Your task to perform on an android device: turn off smart reply in the gmail app Image 0: 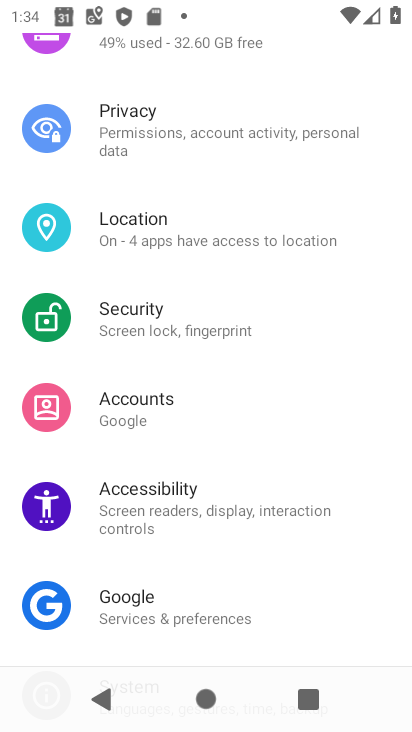
Step 0: press home button
Your task to perform on an android device: turn off smart reply in the gmail app Image 1: 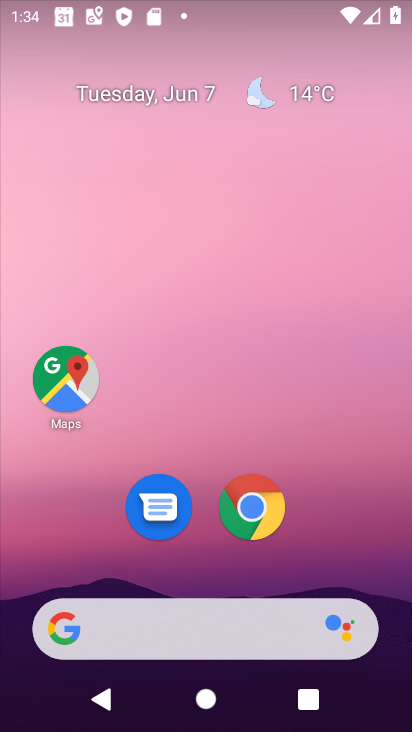
Step 1: drag from (399, 629) to (323, 84)
Your task to perform on an android device: turn off smart reply in the gmail app Image 2: 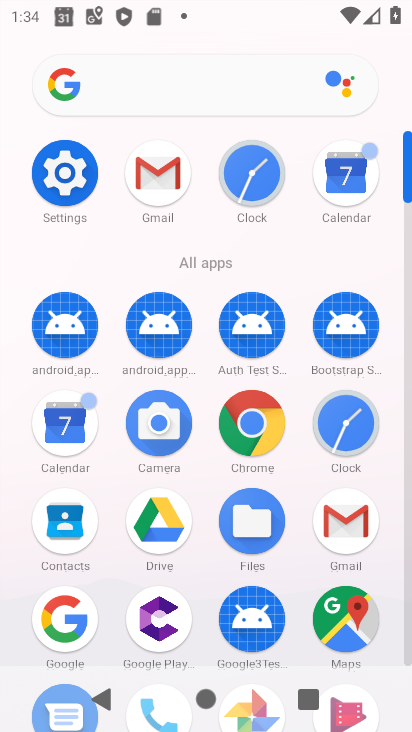
Step 2: click (403, 647)
Your task to perform on an android device: turn off smart reply in the gmail app Image 3: 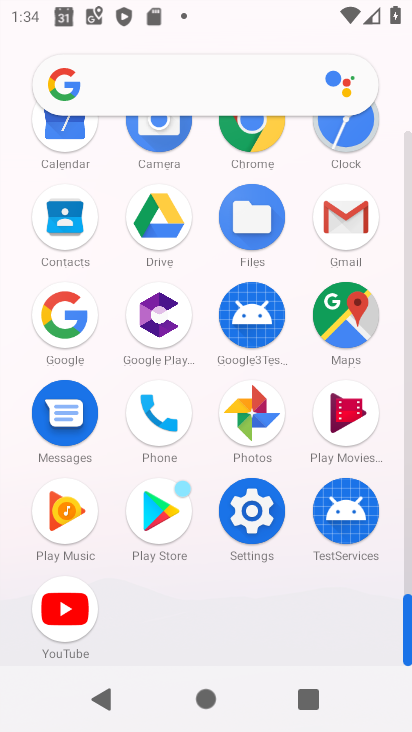
Step 3: click (343, 210)
Your task to perform on an android device: turn off smart reply in the gmail app Image 4: 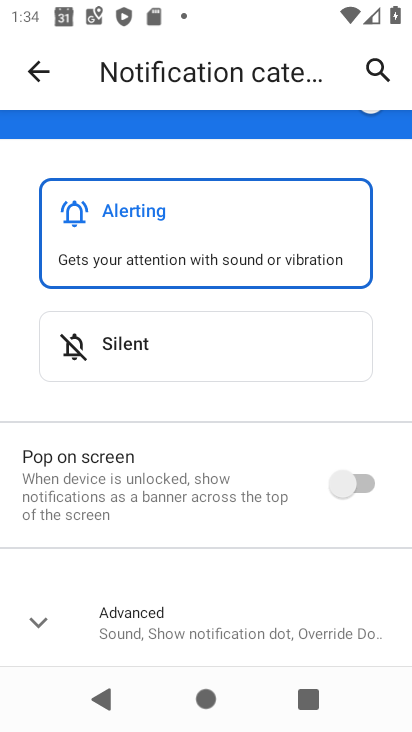
Step 4: press back button
Your task to perform on an android device: turn off smart reply in the gmail app Image 5: 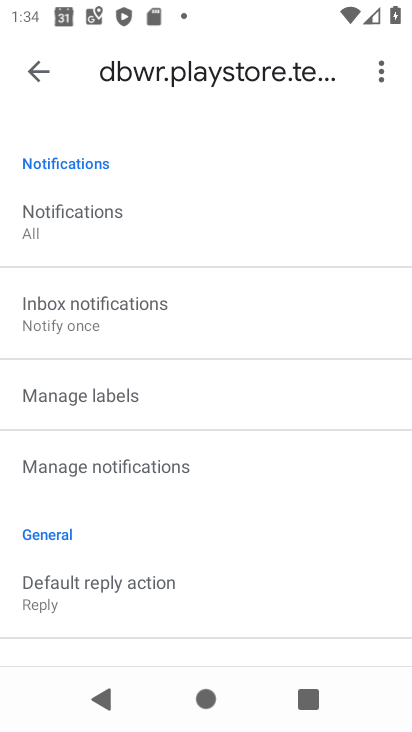
Step 5: drag from (275, 609) to (232, 89)
Your task to perform on an android device: turn off smart reply in the gmail app Image 6: 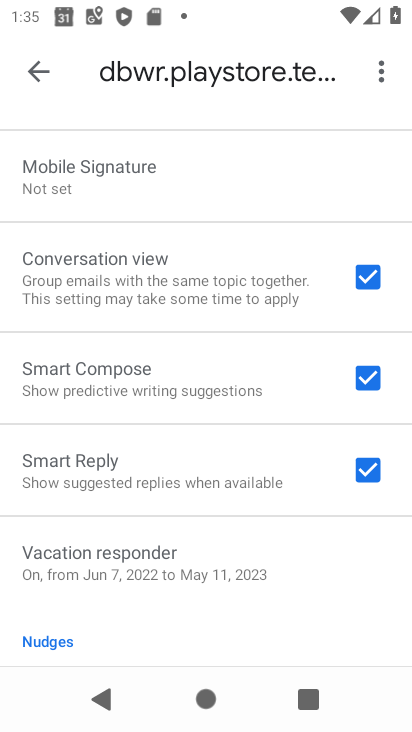
Step 6: click (367, 469)
Your task to perform on an android device: turn off smart reply in the gmail app Image 7: 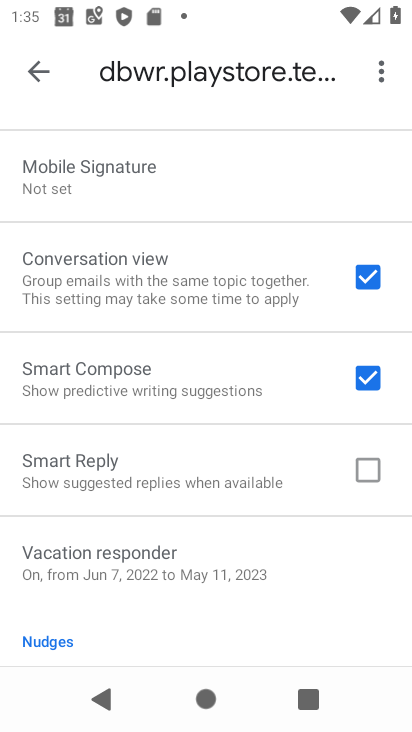
Step 7: task complete